Your task to perform on an android device: delete the emails in spam in the gmail app Image 0: 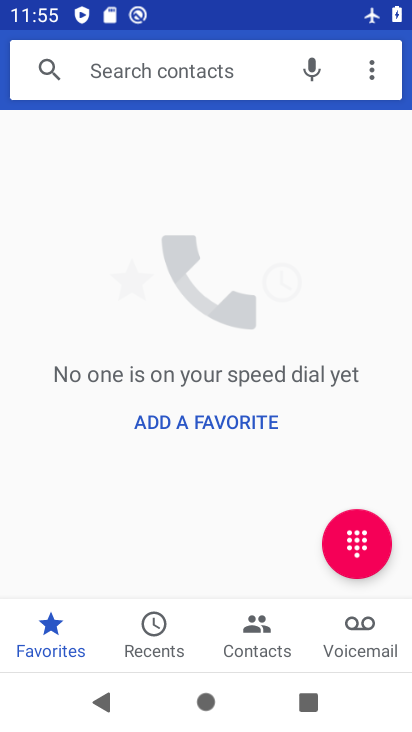
Step 0: press home button
Your task to perform on an android device: delete the emails in spam in the gmail app Image 1: 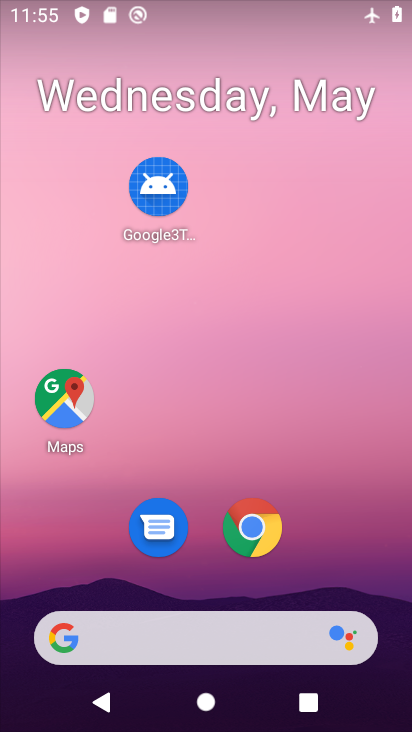
Step 1: drag from (202, 587) to (269, 87)
Your task to perform on an android device: delete the emails in spam in the gmail app Image 2: 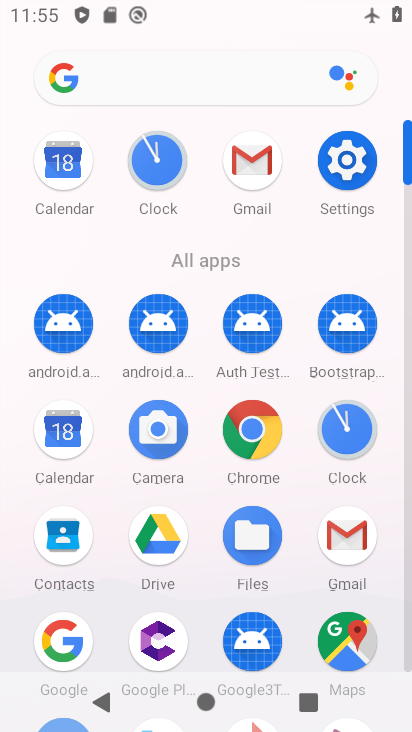
Step 2: click (252, 153)
Your task to perform on an android device: delete the emails in spam in the gmail app Image 3: 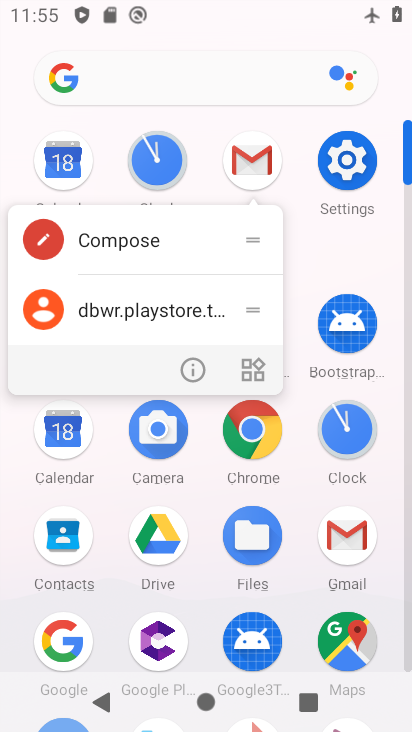
Step 3: click (251, 149)
Your task to perform on an android device: delete the emails in spam in the gmail app Image 4: 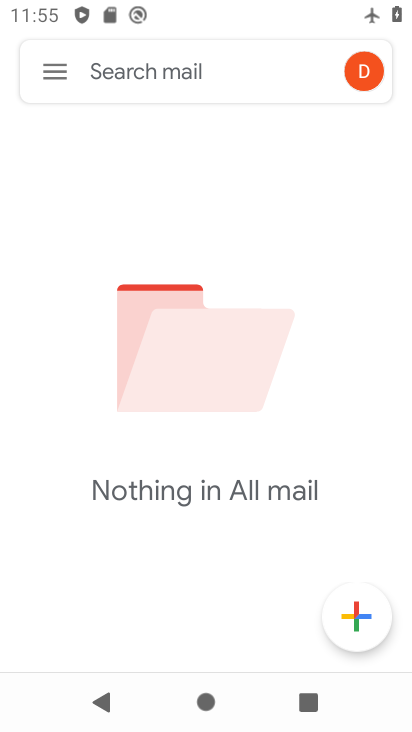
Step 4: task complete